Your task to perform on an android device: toggle priority inbox in the gmail app Image 0: 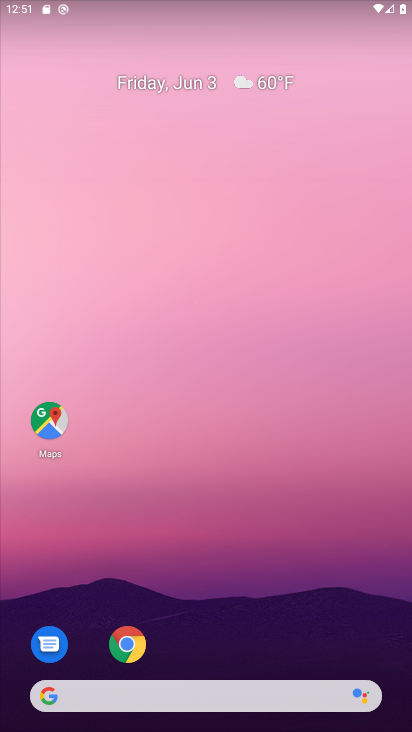
Step 0: drag from (228, 632) to (279, 250)
Your task to perform on an android device: toggle priority inbox in the gmail app Image 1: 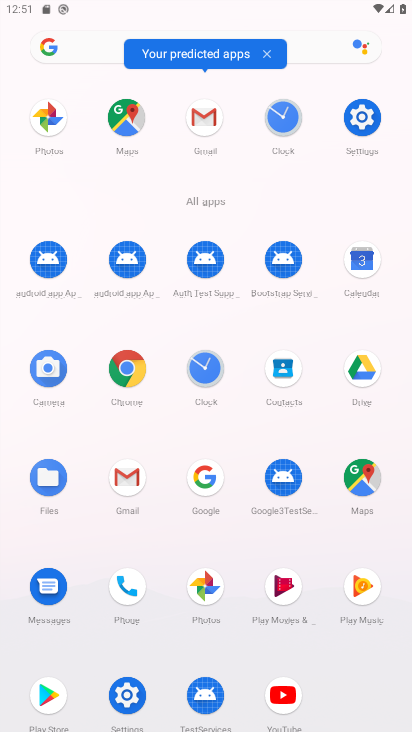
Step 1: click (125, 487)
Your task to perform on an android device: toggle priority inbox in the gmail app Image 2: 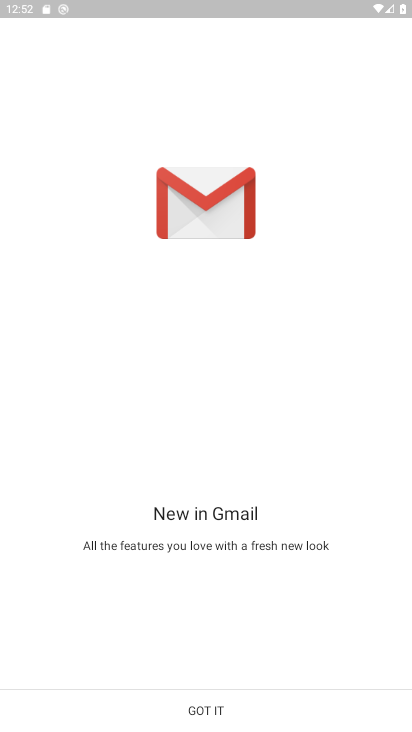
Step 2: click (219, 716)
Your task to perform on an android device: toggle priority inbox in the gmail app Image 3: 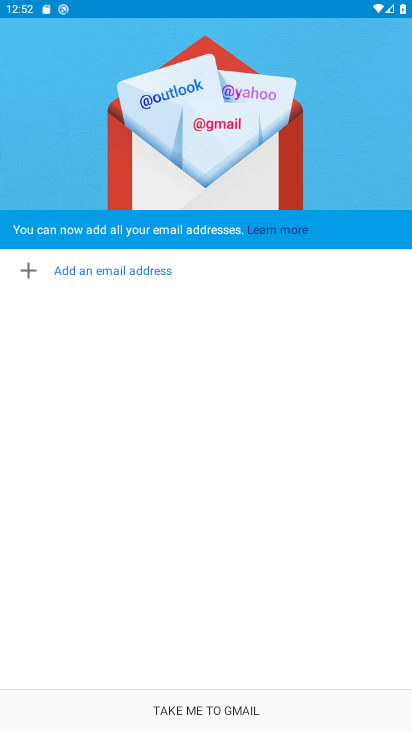
Step 3: click (220, 699)
Your task to perform on an android device: toggle priority inbox in the gmail app Image 4: 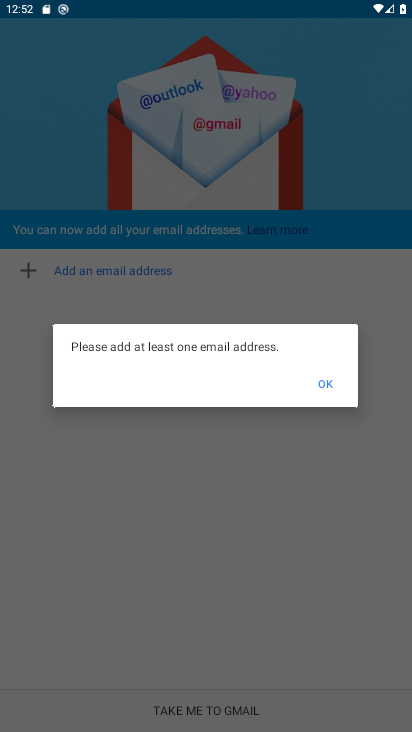
Step 4: click (324, 389)
Your task to perform on an android device: toggle priority inbox in the gmail app Image 5: 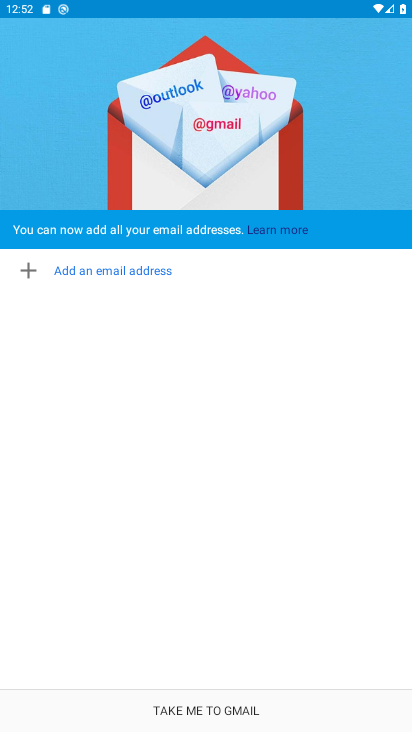
Step 5: drag from (156, 307) to (142, 464)
Your task to perform on an android device: toggle priority inbox in the gmail app Image 6: 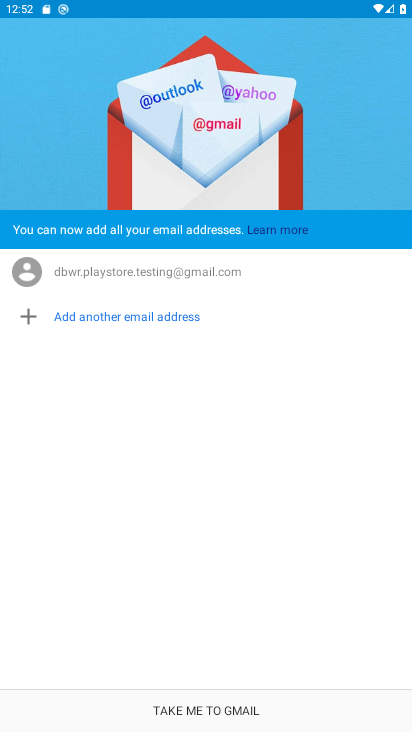
Step 6: drag from (123, 315) to (103, 644)
Your task to perform on an android device: toggle priority inbox in the gmail app Image 7: 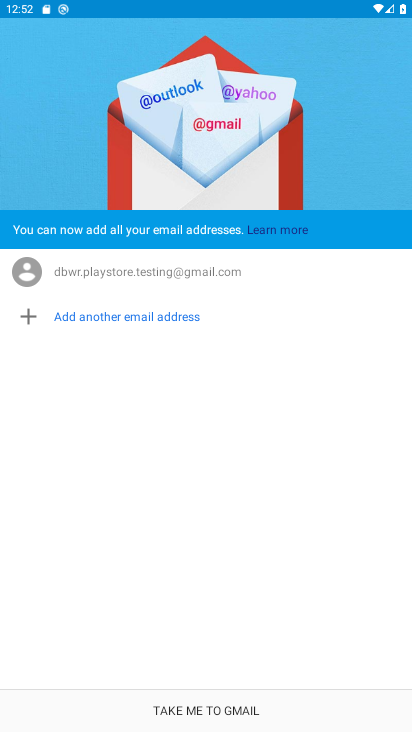
Step 7: click (204, 714)
Your task to perform on an android device: toggle priority inbox in the gmail app Image 8: 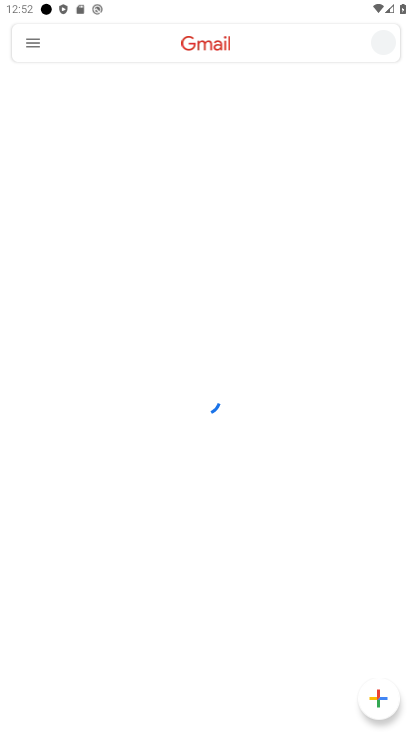
Step 8: click (41, 39)
Your task to perform on an android device: toggle priority inbox in the gmail app Image 9: 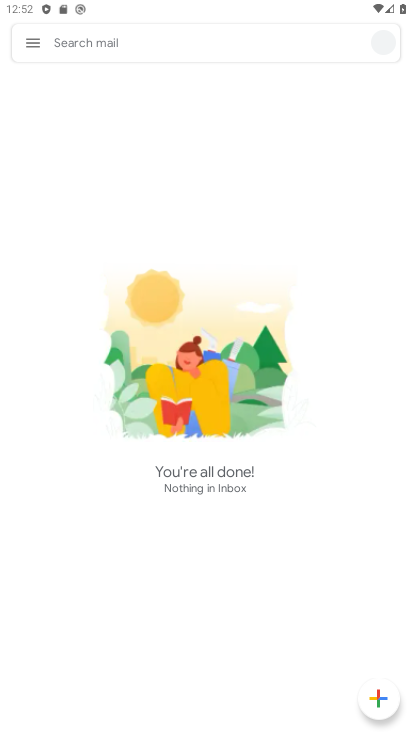
Step 9: click (20, 33)
Your task to perform on an android device: toggle priority inbox in the gmail app Image 10: 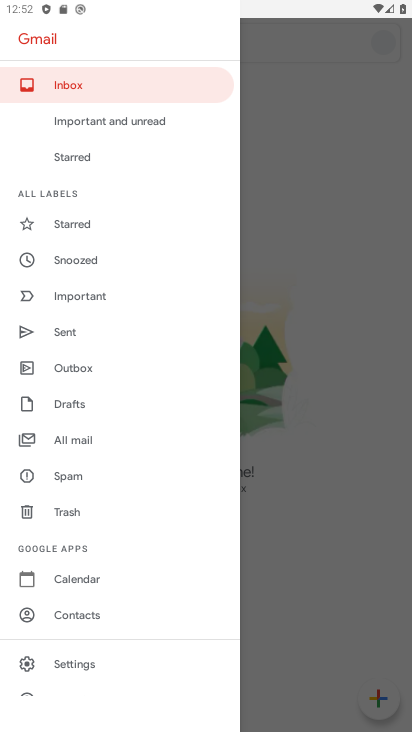
Step 10: click (71, 676)
Your task to perform on an android device: toggle priority inbox in the gmail app Image 11: 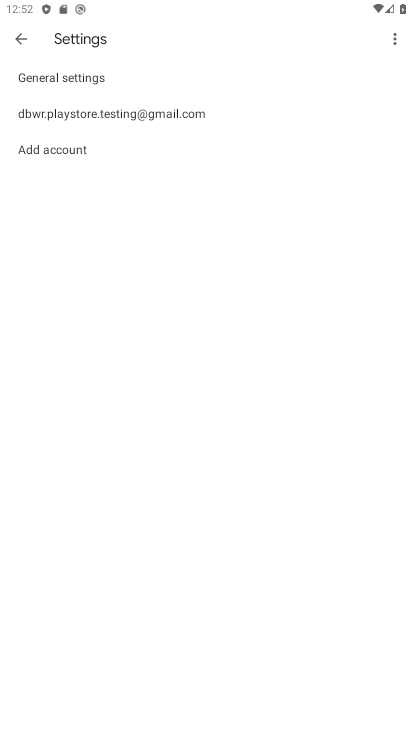
Step 11: click (98, 109)
Your task to perform on an android device: toggle priority inbox in the gmail app Image 12: 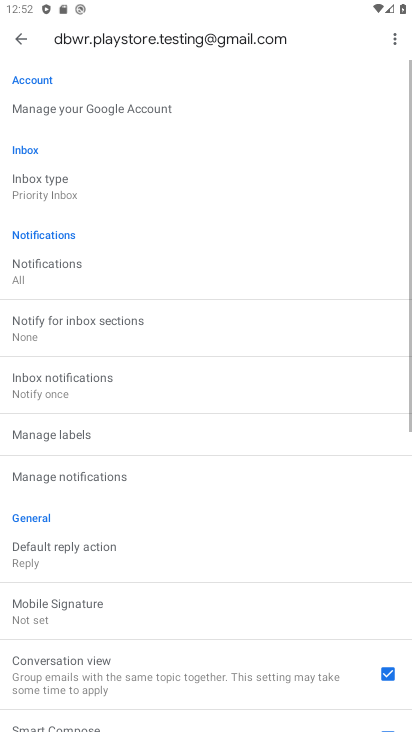
Step 12: click (77, 181)
Your task to perform on an android device: toggle priority inbox in the gmail app Image 13: 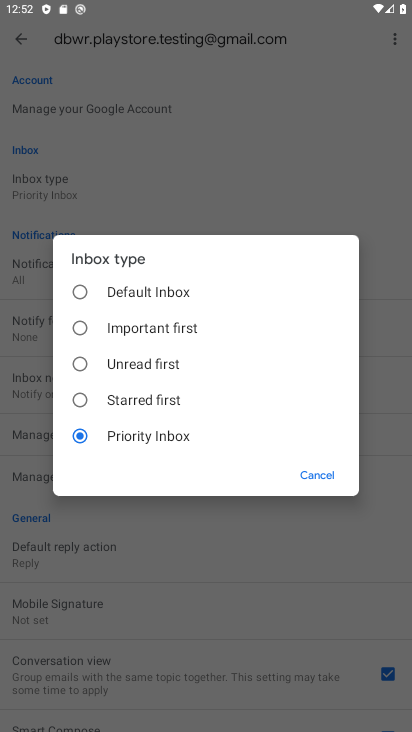
Step 13: click (123, 295)
Your task to perform on an android device: toggle priority inbox in the gmail app Image 14: 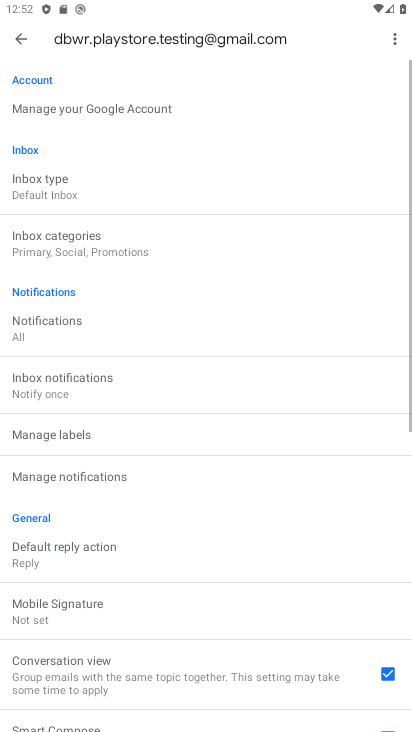
Step 14: task complete